Your task to perform on an android device: Add jbl flip 4 to the cart on target.com Image 0: 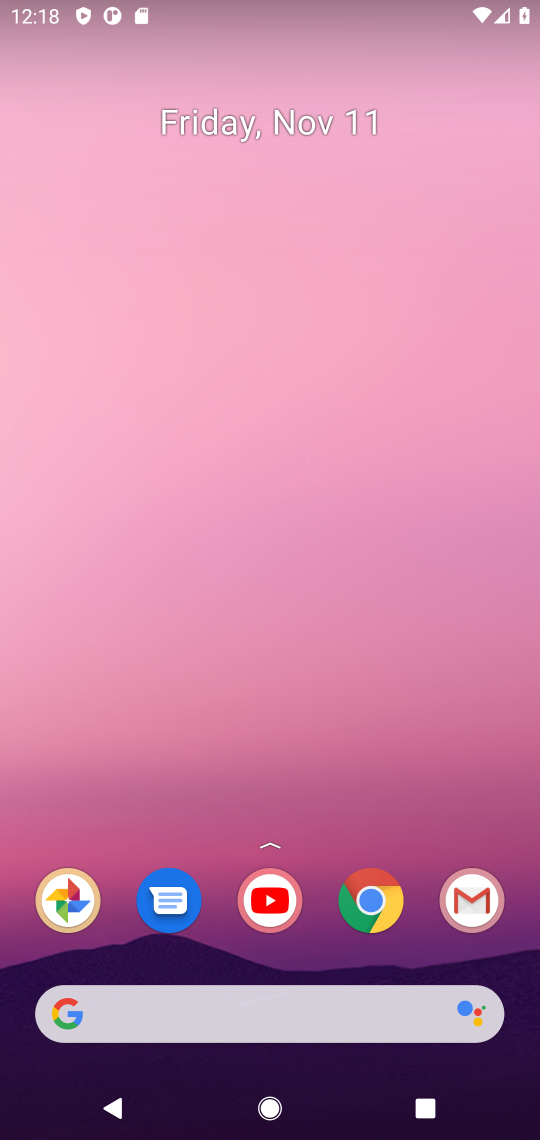
Step 0: click (363, 899)
Your task to perform on an android device: Add jbl flip 4 to the cart on target.com Image 1: 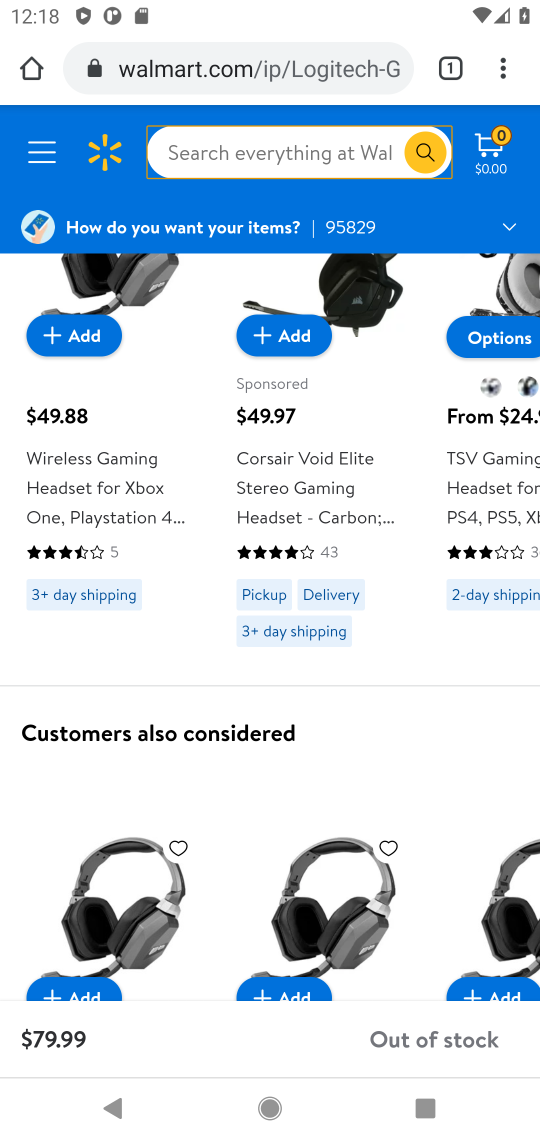
Step 1: click (313, 65)
Your task to perform on an android device: Add jbl flip 4 to the cart on target.com Image 2: 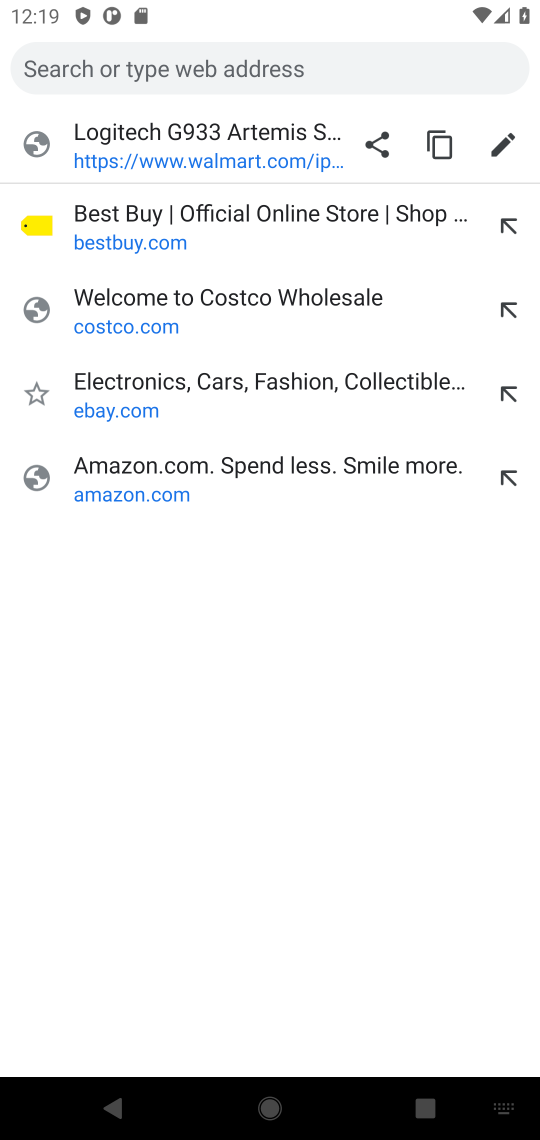
Step 2: type "target.com"
Your task to perform on an android device: Add jbl flip 4 to the cart on target.com Image 3: 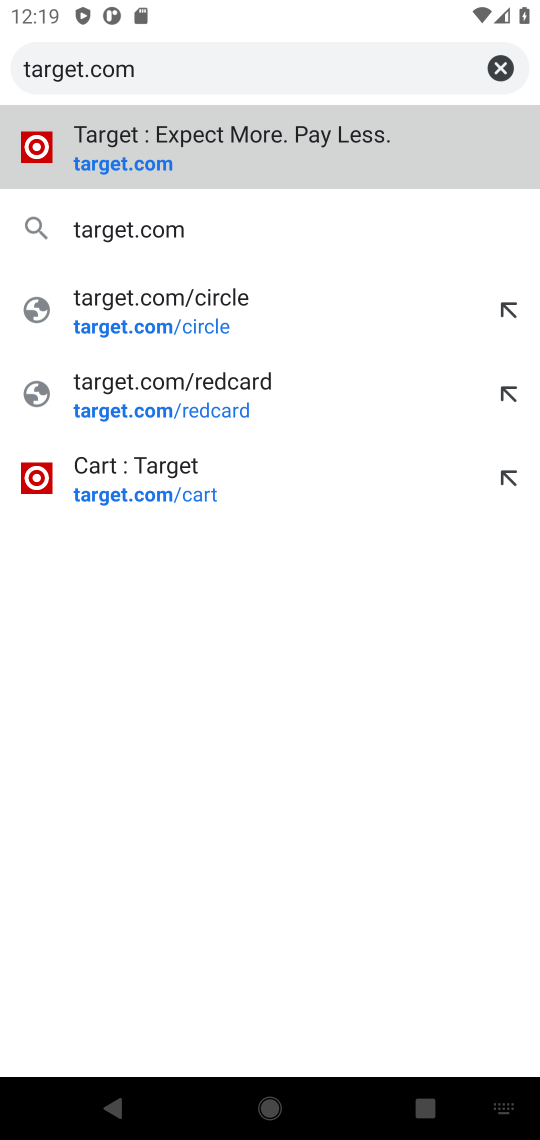
Step 3: press enter
Your task to perform on an android device: Add jbl flip 4 to the cart on target.com Image 4: 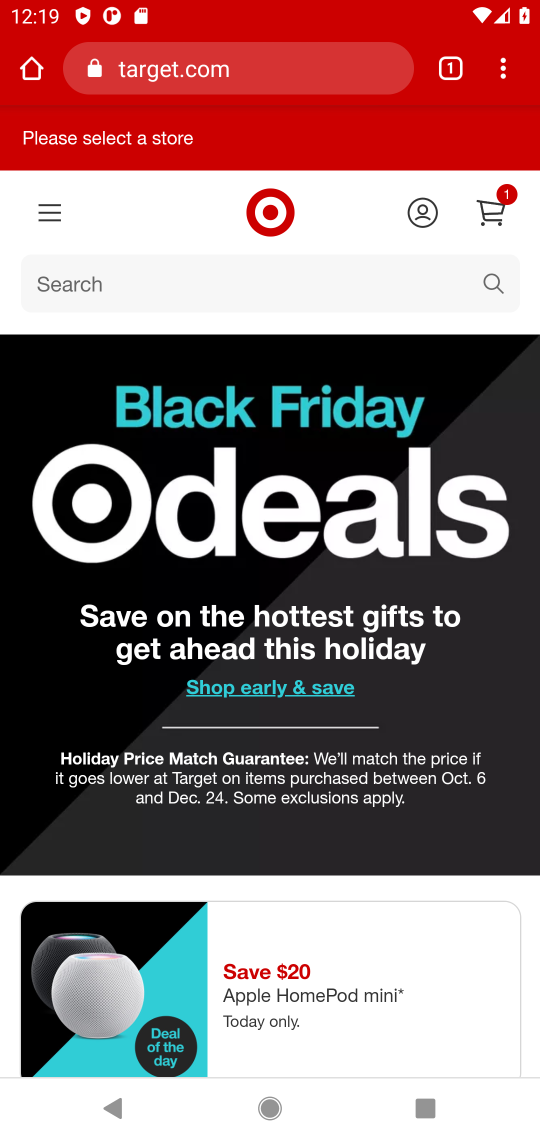
Step 4: click (136, 273)
Your task to perform on an android device: Add jbl flip 4 to the cart on target.com Image 5: 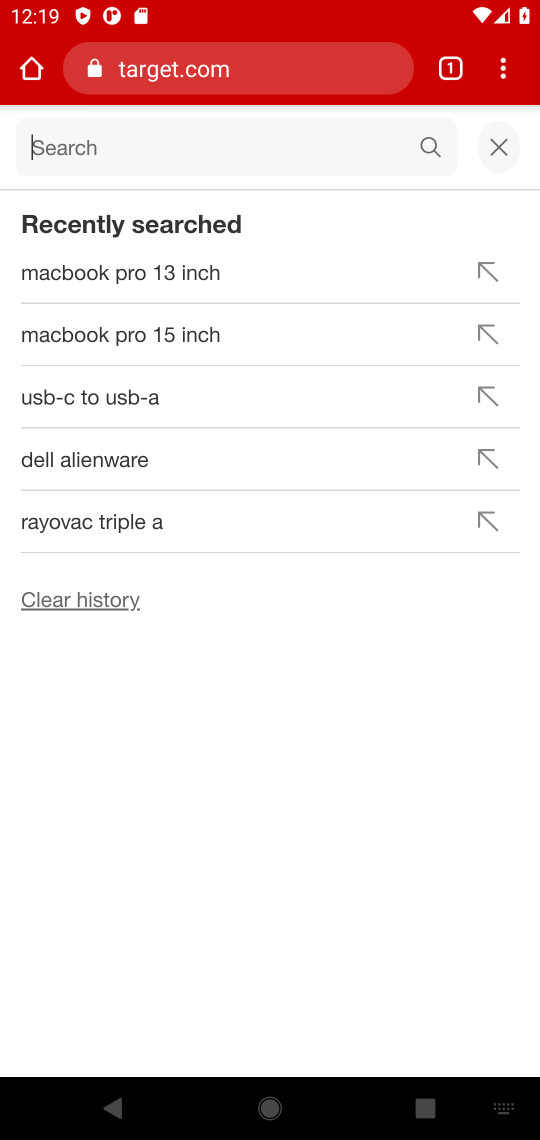
Step 5: type " jbl flip 4 "
Your task to perform on an android device: Add jbl flip 4 to the cart on target.com Image 6: 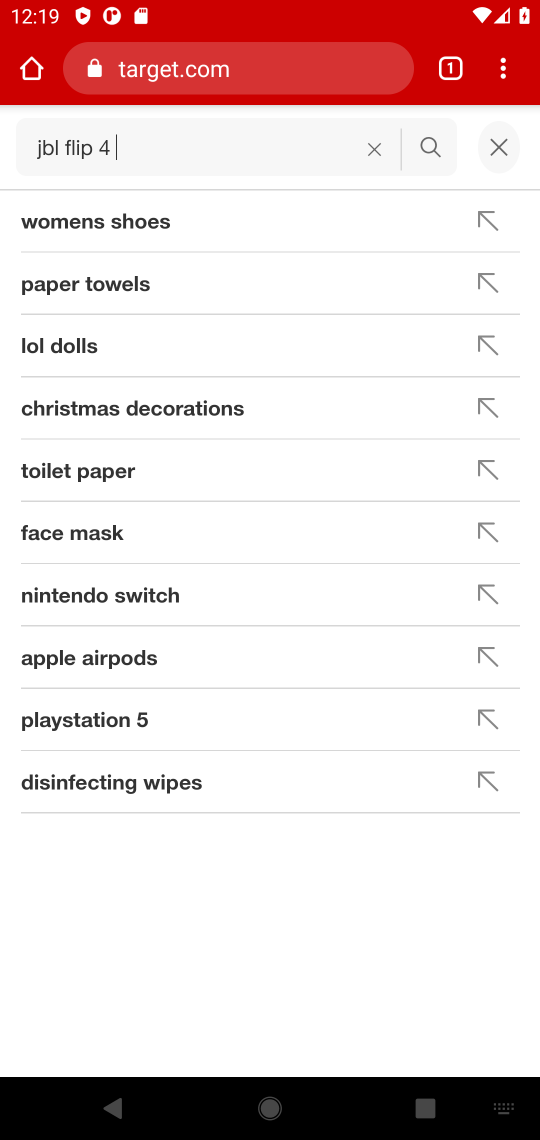
Step 6: press enter
Your task to perform on an android device: Add jbl flip 4 to the cart on target.com Image 7: 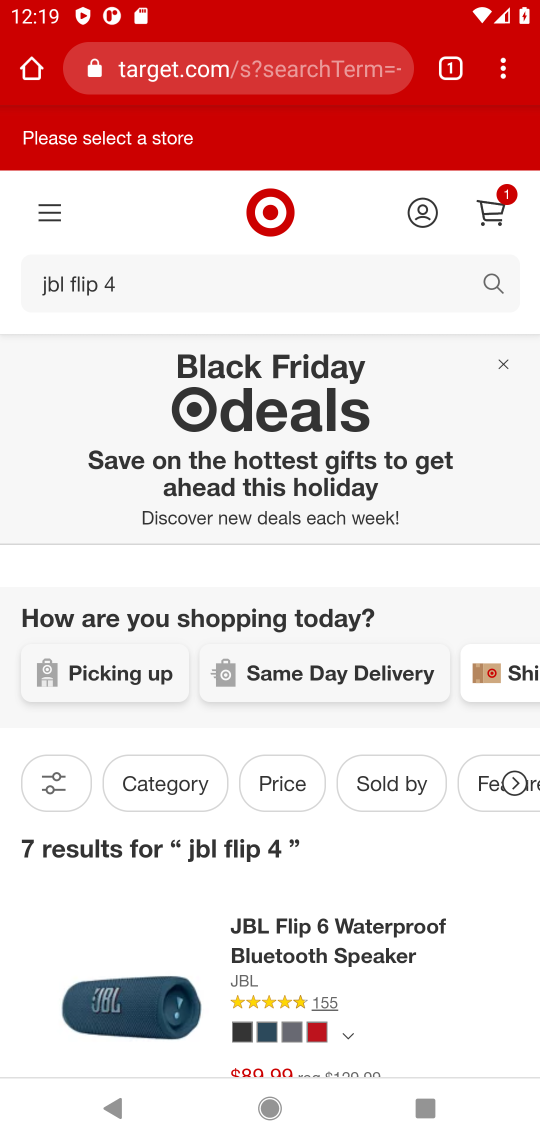
Step 7: task complete